Your task to perform on an android device: Open Yahoo.com Image 0: 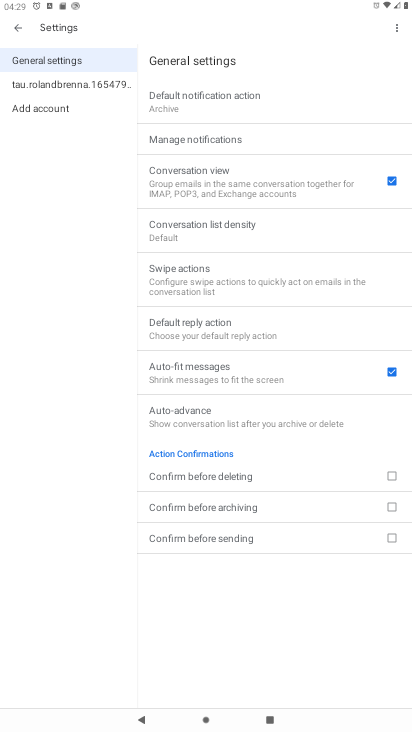
Step 0: press home button
Your task to perform on an android device: Open Yahoo.com Image 1: 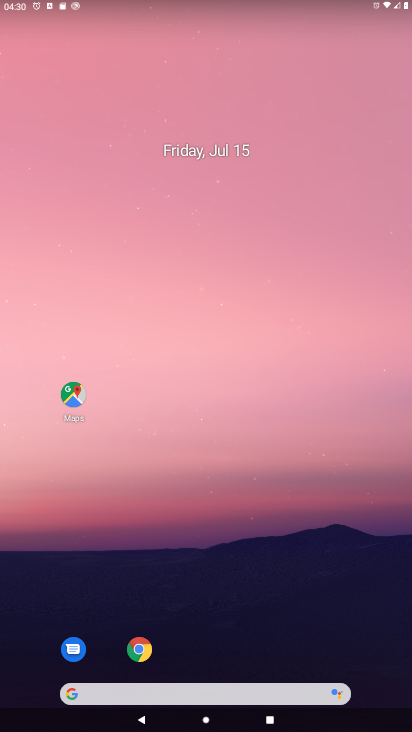
Step 1: click (138, 652)
Your task to perform on an android device: Open Yahoo.com Image 2: 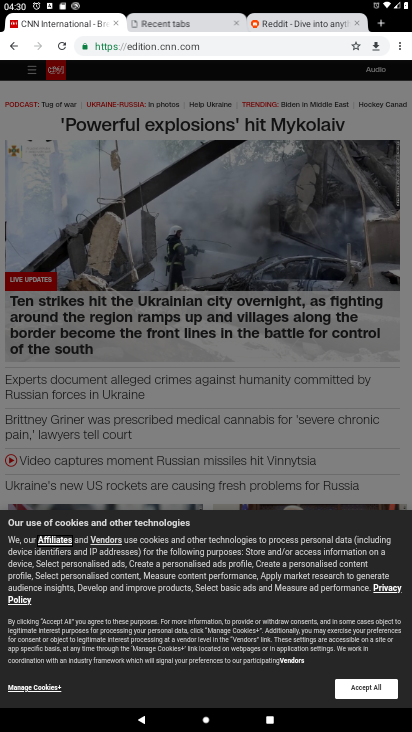
Step 2: click (218, 48)
Your task to perform on an android device: Open Yahoo.com Image 3: 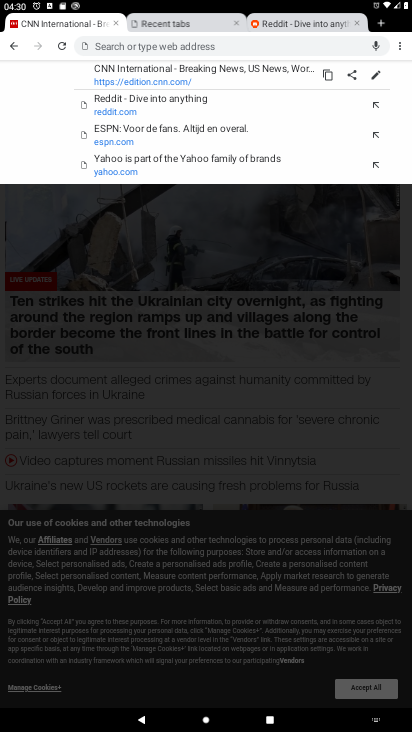
Step 3: type "yahoo.com"
Your task to perform on an android device: Open Yahoo.com Image 4: 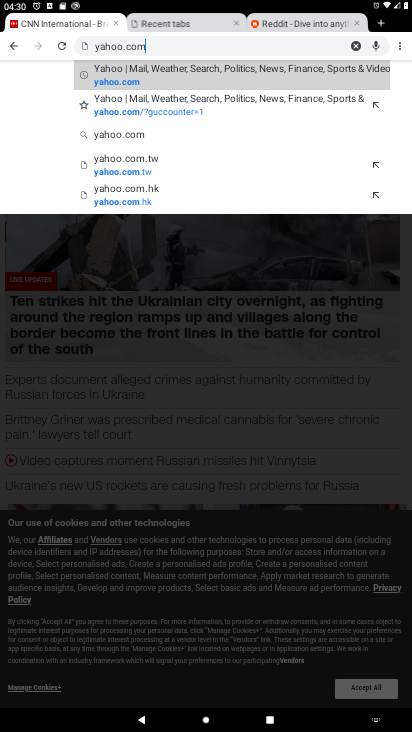
Step 4: click (107, 96)
Your task to perform on an android device: Open Yahoo.com Image 5: 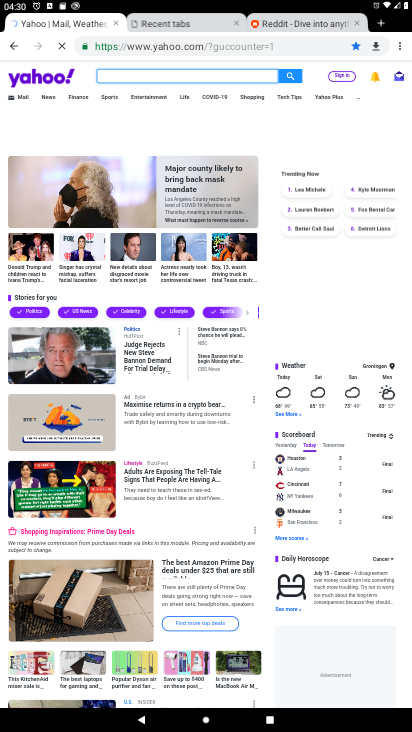
Step 5: task complete